Your task to perform on an android device: Open the web browser Image 0: 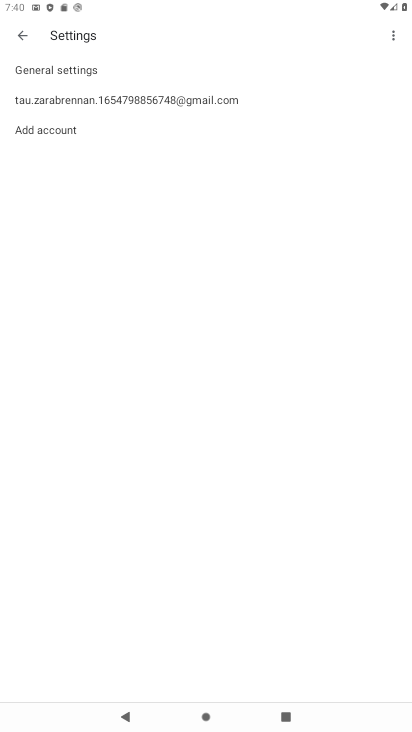
Step 0: press home button
Your task to perform on an android device: Open the web browser Image 1: 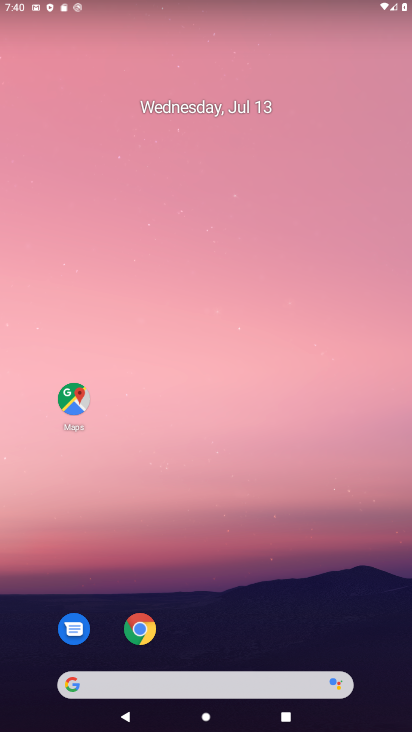
Step 1: click (134, 621)
Your task to perform on an android device: Open the web browser Image 2: 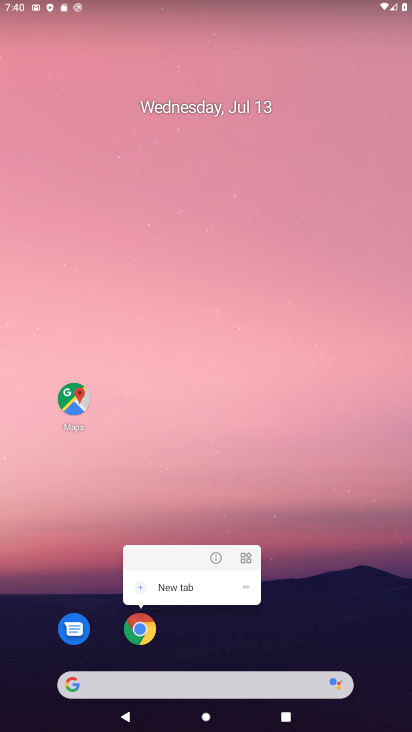
Step 2: click (146, 626)
Your task to perform on an android device: Open the web browser Image 3: 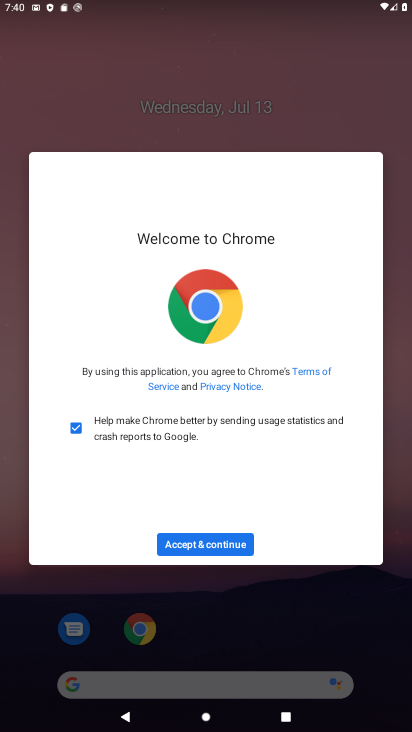
Step 3: click (210, 540)
Your task to perform on an android device: Open the web browser Image 4: 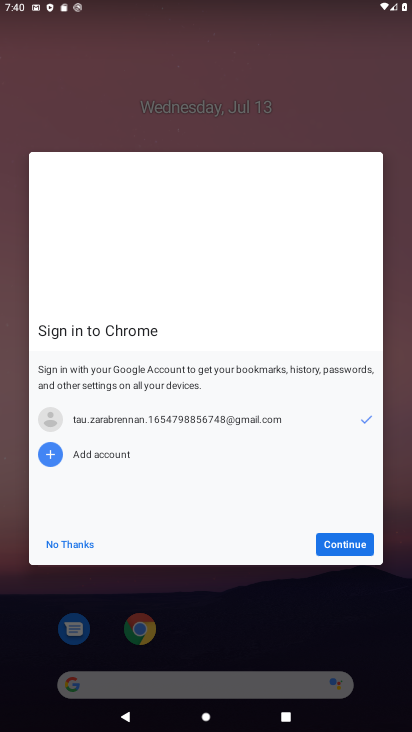
Step 4: click (373, 542)
Your task to perform on an android device: Open the web browser Image 5: 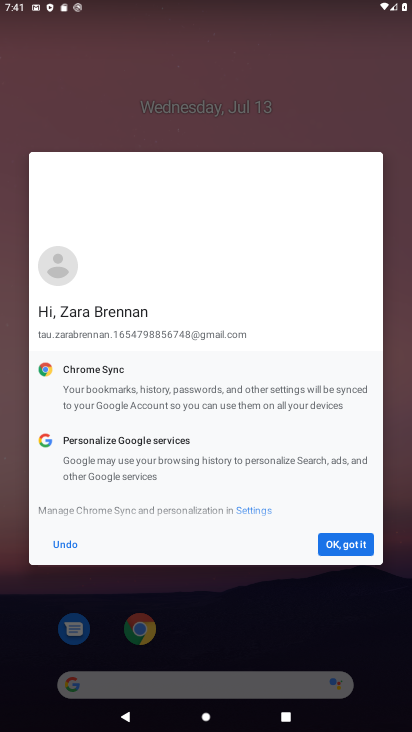
Step 5: click (356, 543)
Your task to perform on an android device: Open the web browser Image 6: 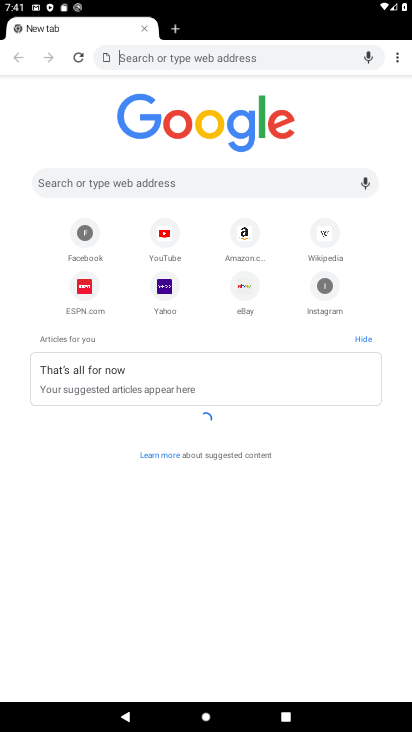
Step 6: task complete